Your task to perform on an android device: Go to wifi settings Image 0: 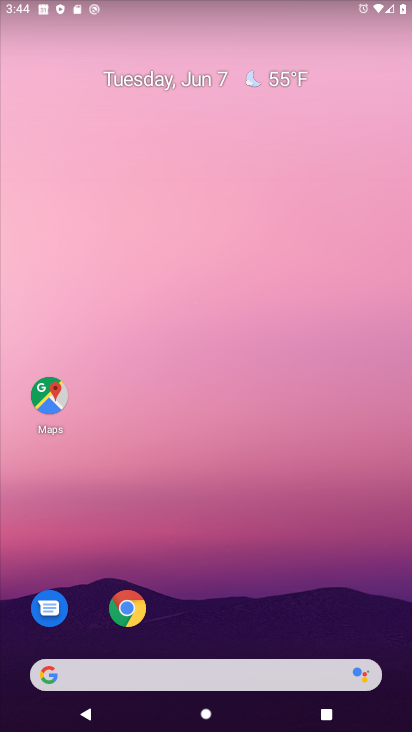
Step 0: drag from (236, 648) to (156, 63)
Your task to perform on an android device: Go to wifi settings Image 1: 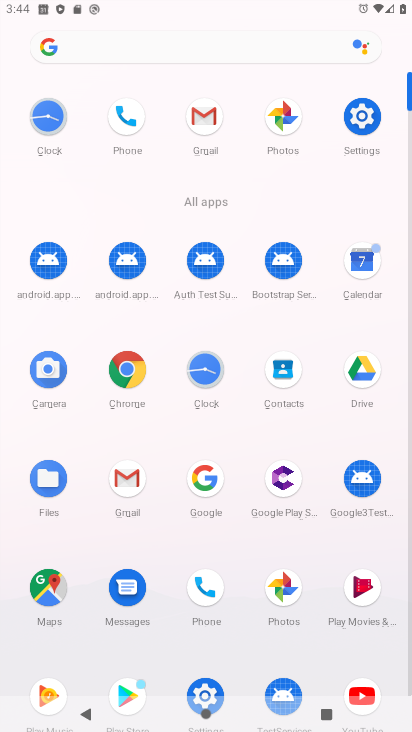
Step 1: click (360, 135)
Your task to perform on an android device: Go to wifi settings Image 2: 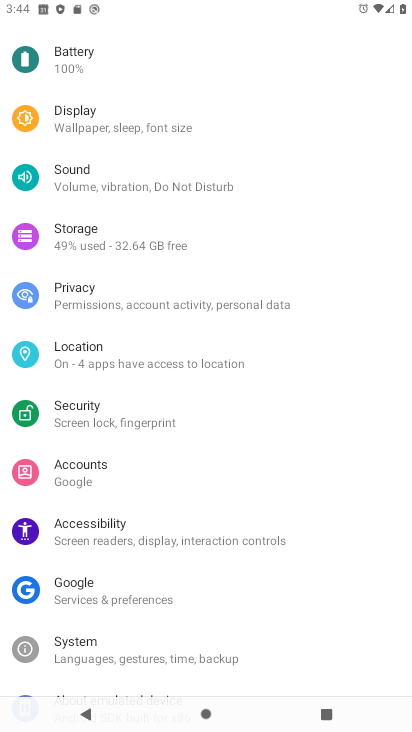
Step 2: drag from (119, 103) to (122, 569)
Your task to perform on an android device: Go to wifi settings Image 3: 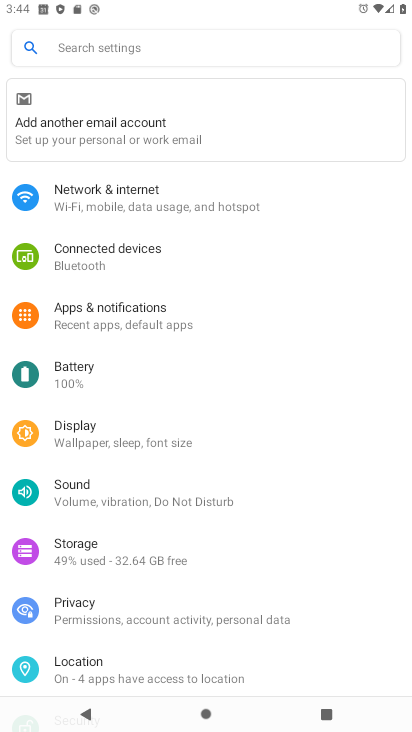
Step 3: click (91, 215)
Your task to perform on an android device: Go to wifi settings Image 4: 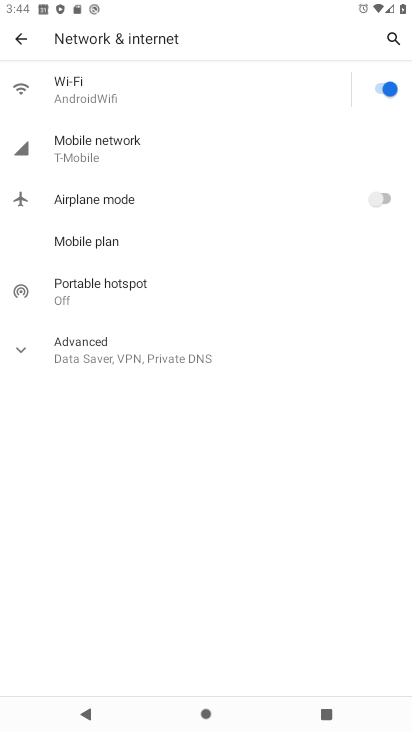
Step 4: click (104, 131)
Your task to perform on an android device: Go to wifi settings Image 5: 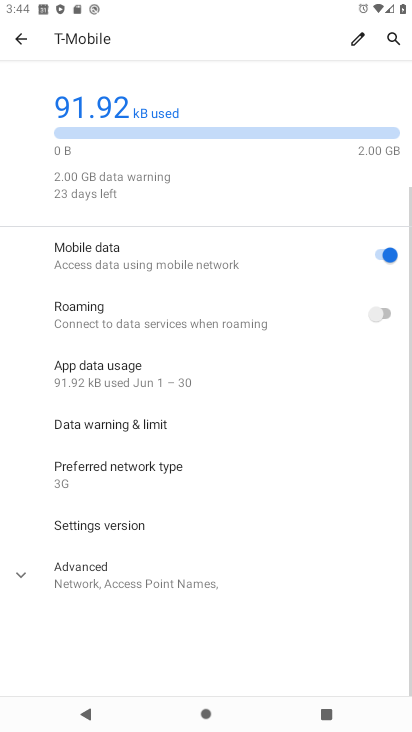
Step 5: click (21, 19)
Your task to perform on an android device: Go to wifi settings Image 6: 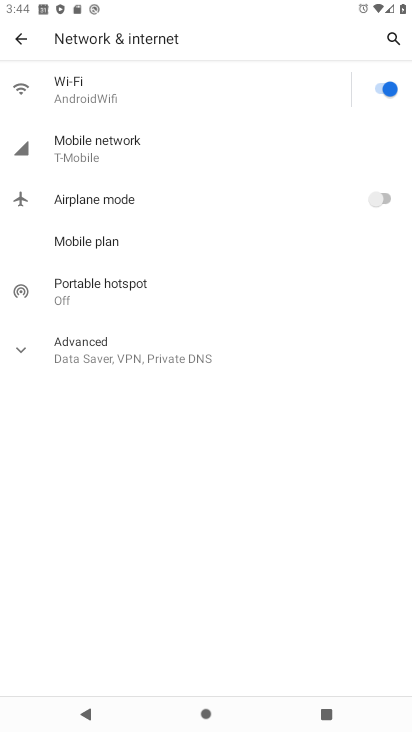
Step 6: click (71, 90)
Your task to perform on an android device: Go to wifi settings Image 7: 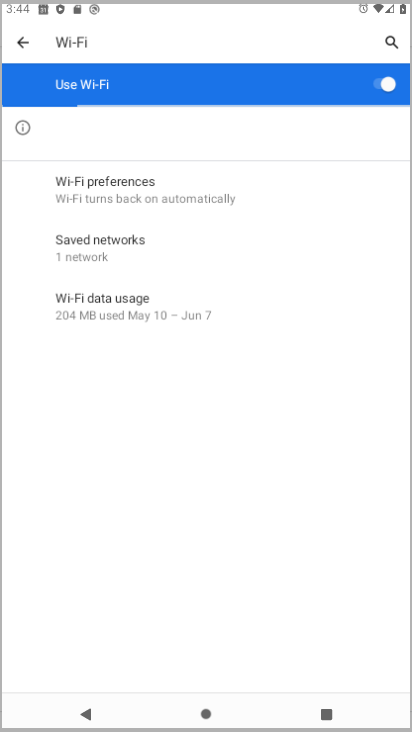
Step 7: task complete